Your task to perform on an android device: set default search engine in the chrome app Image 0: 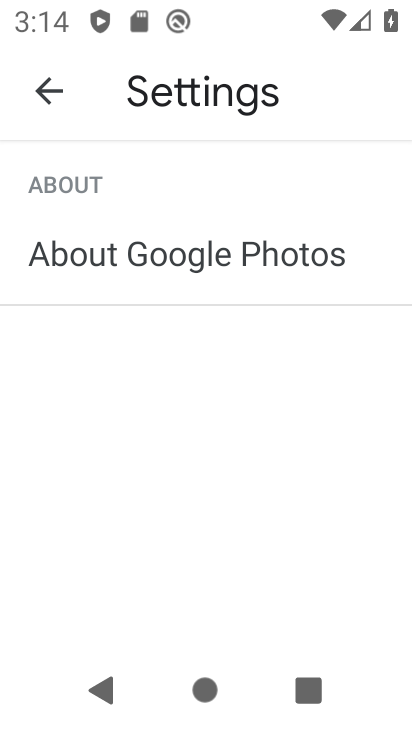
Step 0: drag from (18, 484) to (392, 409)
Your task to perform on an android device: set default search engine in the chrome app Image 1: 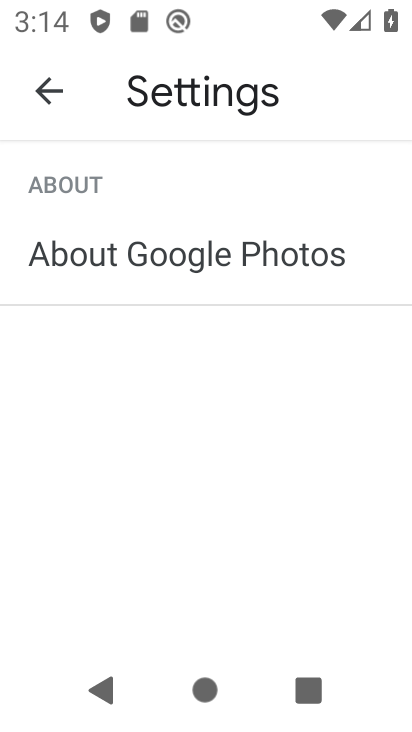
Step 1: press home button
Your task to perform on an android device: set default search engine in the chrome app Image 2: 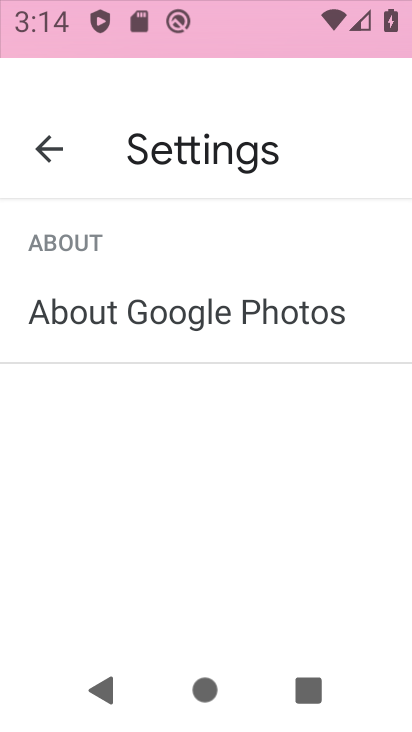
Step 2: click (409, 307)
Your task to perform on an android device: set default search engine in the chrome app Image 3: 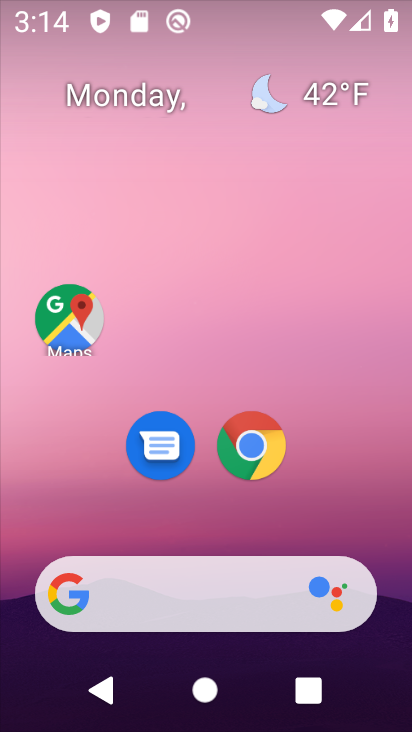
Step 3: drag from (29, 533) to (188, 31)
Your task to perform on an android device: set default search engine in the chrome app Image 4: 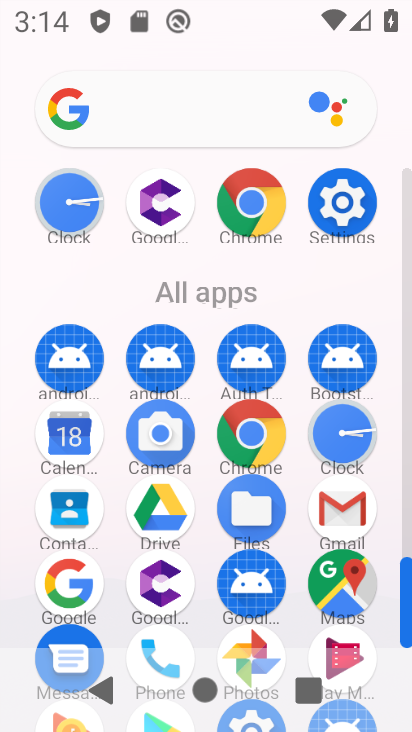
Step 4: click (250, 426)
Your task to perform on an android device: set default search engine in the chrome app Image 5: 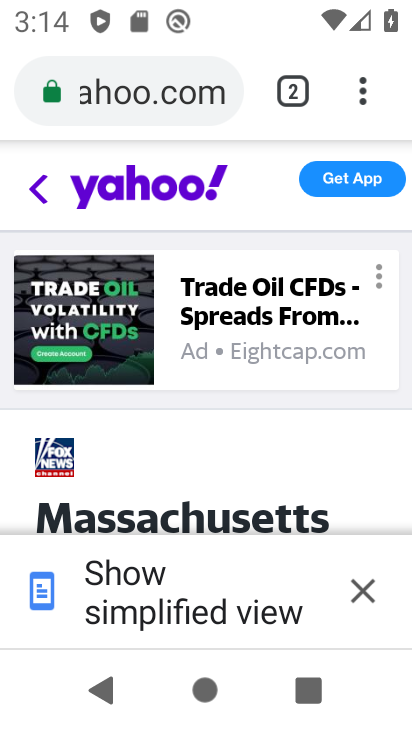
Step 5: press back button
Your task to perform on an android device: set default search engine in the chrome app Image 6: 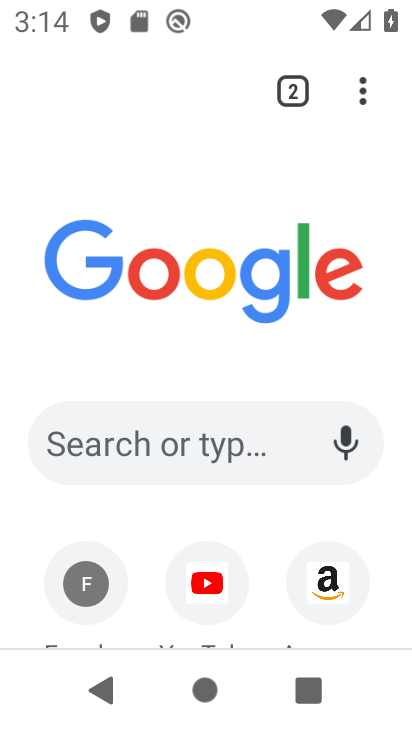
Step 6: click (364, 85)
Your task to perform on an android device: set default search engine in the chrome app Image 7: 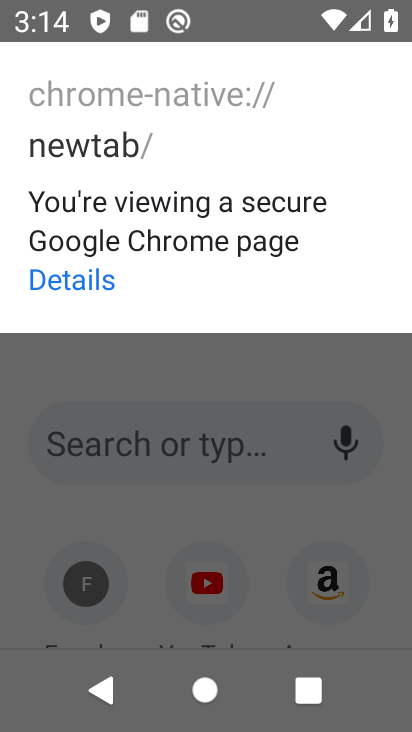
Step 7: click (247, 378)
Your task to perform on an android device: set default search engine in the chrome app Image 8: 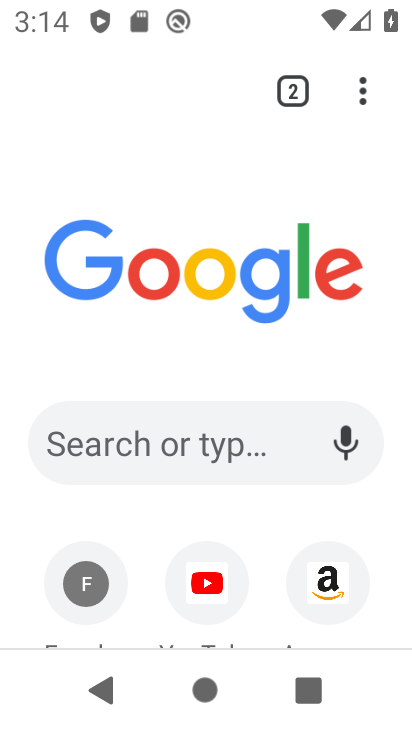
Step 8: click (357, 79)
Your task to perform on an android device: set default search engine in the chrome app Image 9: 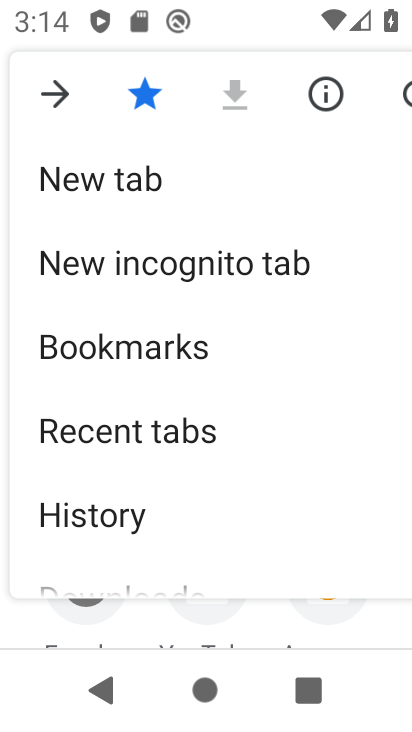
Step 9: drag from (141, 507) to (144, 179)
Your task to perform on an android device: set default search engine in the chrome app Image 10: 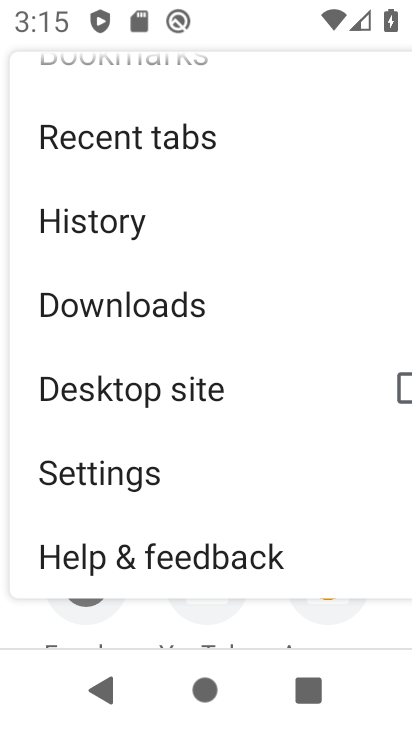
Step 10: click (118, 469)
Your task to perform on an android device: set default search engine in the chrome app Image 11: 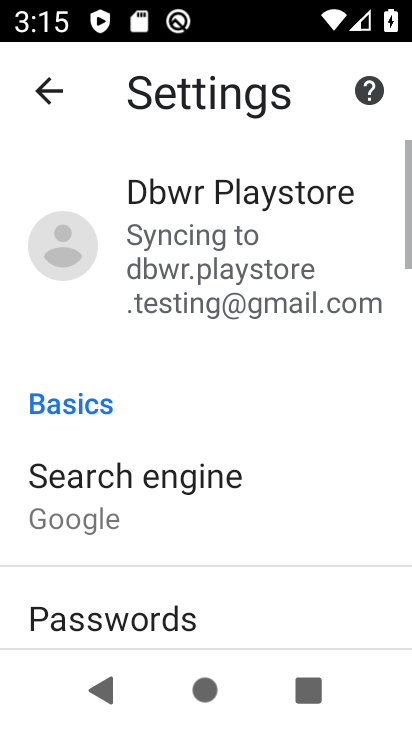
Step 11: click (160, 504)
Your task to perform on an android device: set default search engine in the chrome app Image 12: 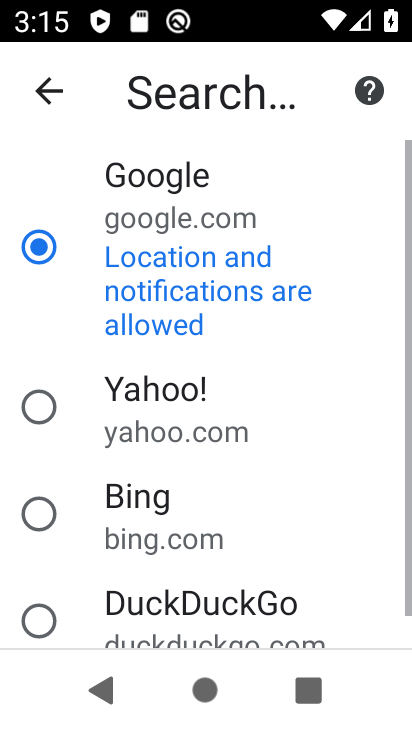
Step 12: click (192, 400)
Your task to perform on an android device: set default search engine in the chrome app Image 13: 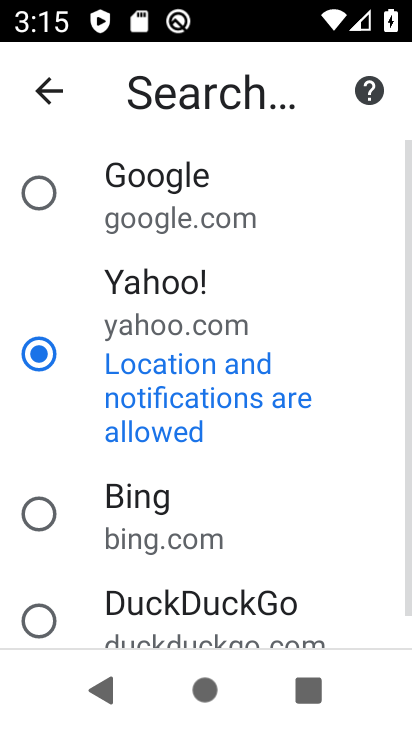
Step 13: task complete